Your task to perform on an android device: delete location history Image 0: 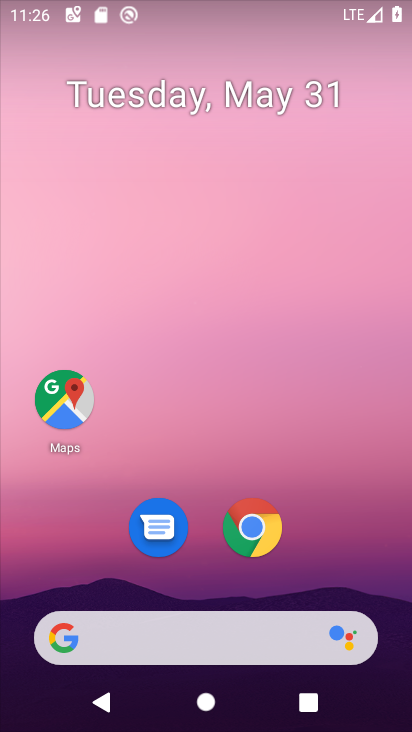
Step 0: click (58, 407)
Your task to perform on an android device: delete location history Image 1: 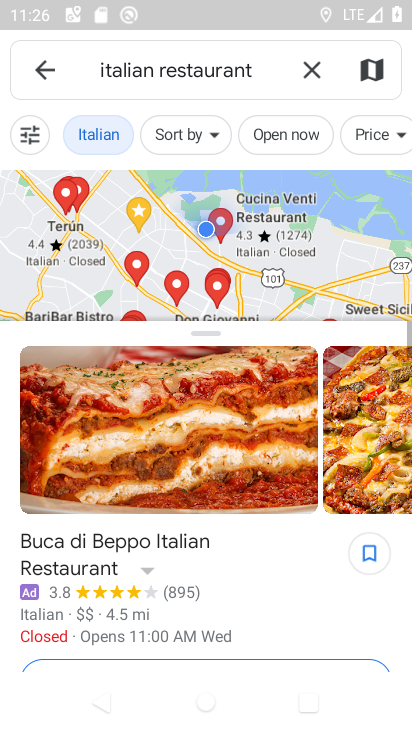
Step 1: click (308, 73)
Your task to perform on an android device: delete location history Image 2: 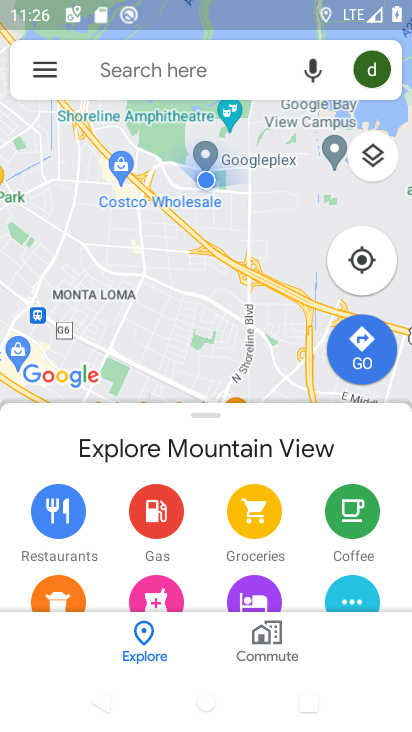
Step 2: click (37, 78)
Your task to perform on an android device: delete location history Image 3: 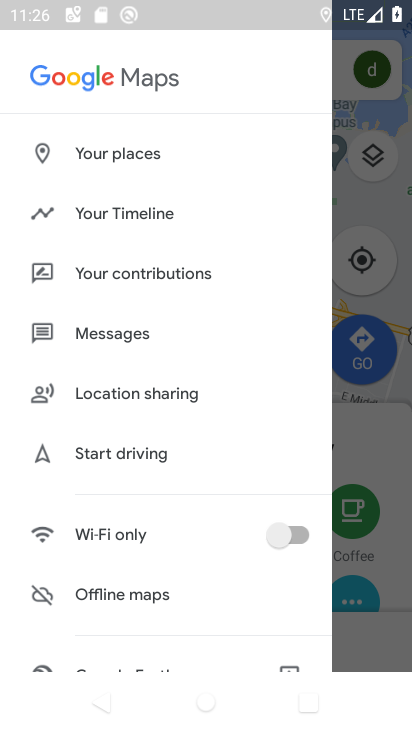
Step 3: click (75, 218)
Your task to perform on an android device: delete location history Image 4: 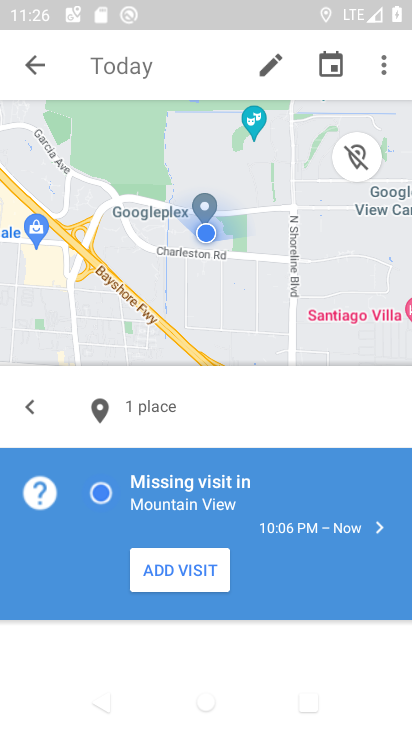
Step 4: click (388, 64)
Your task to perform on an android device: delete location history Image 5: 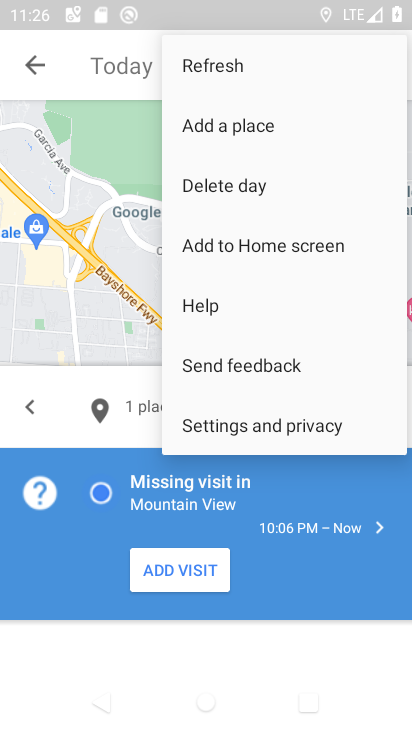
Step 5: click (222, 426)
Your task to perform on an android device: delete location history Image 6: 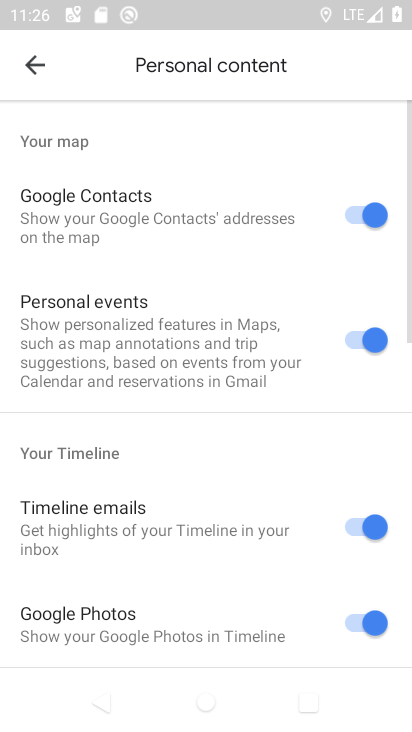
Step 6: drag from (212, 467) to (178, 98)
Your task to perform on an android device: delete location history Image 7: 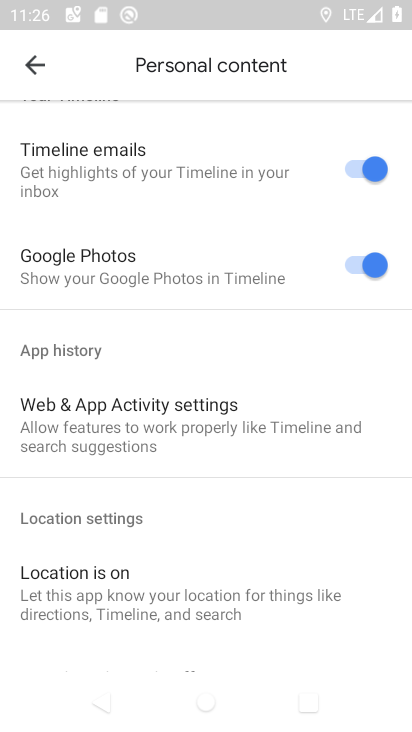
Step 7: drag from (139, 504) to (116, 119)
Your task to perform on an android device: delete location history Image 8: 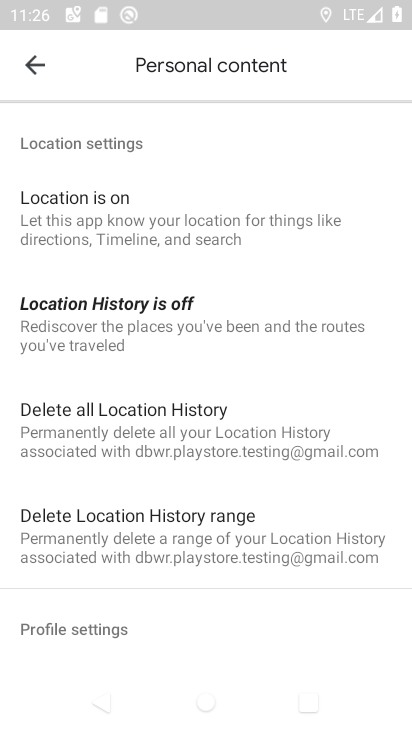
Step 8: click (125, 428)
Your task to perform on an android device: delete location history Image 9: 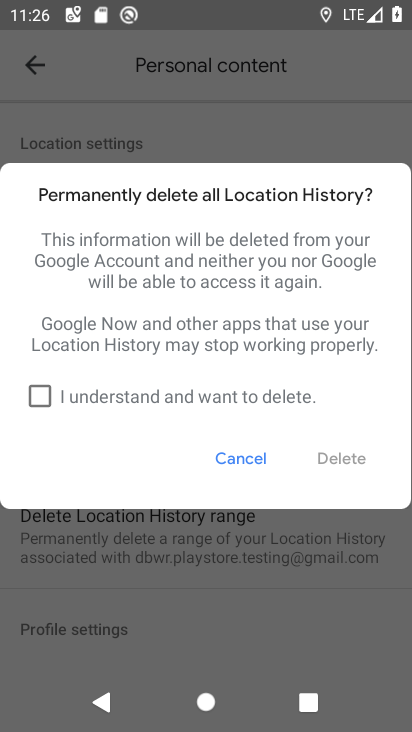
Step 9: click (35, 392)
Your task to perform on an android device: delete location history Image 10: 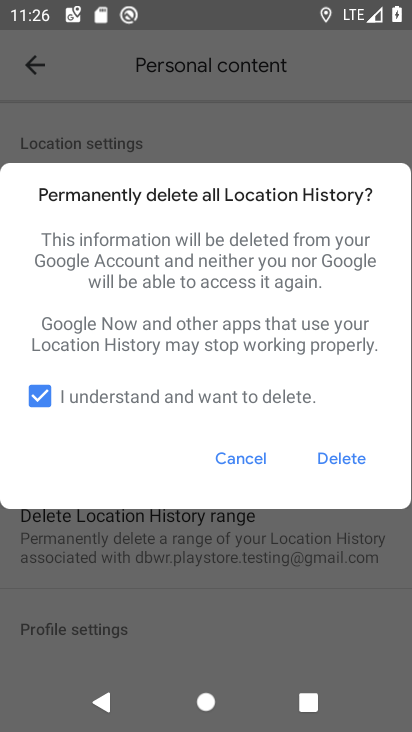
Step 10: click (334, 460)
Your task to perform on an android device: delete location history Image 11: 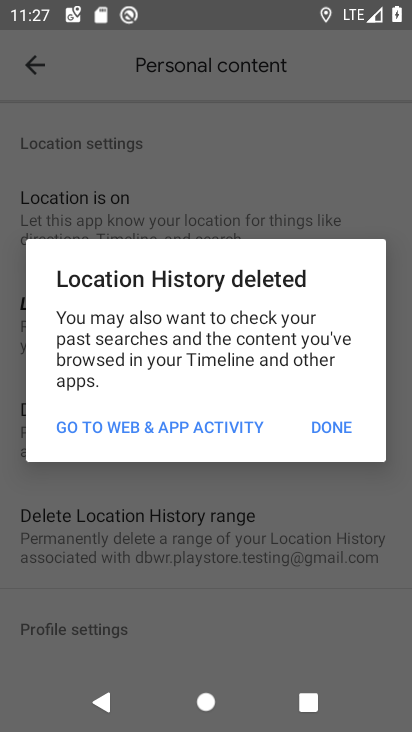
Step 11: click (331, 436)
Your task to perform on an android device: delete location history Image 12: 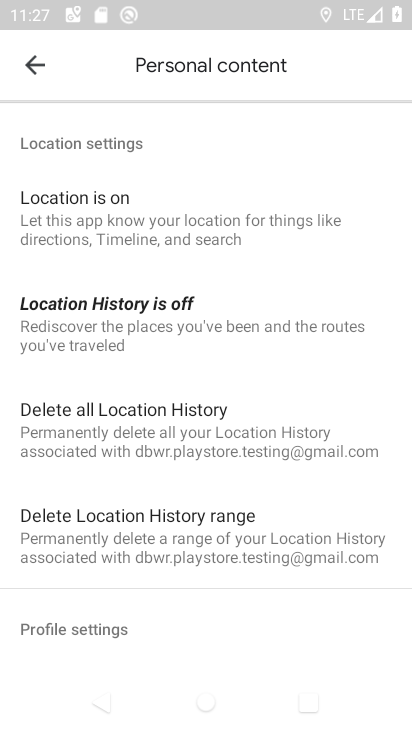
Step 12: task complete